Your task to perform on an android device: open the mobile data screen to see how much data has been used Image 0: 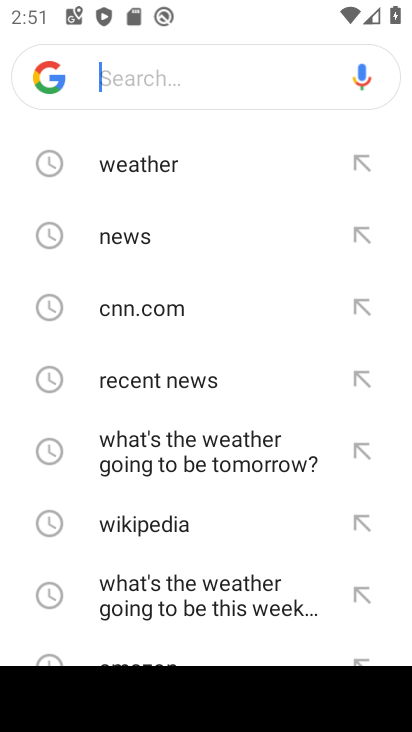
Step 0: press home button
Your task to perform on an android device: open the mobile data screen to see how much data has been used Image 1: 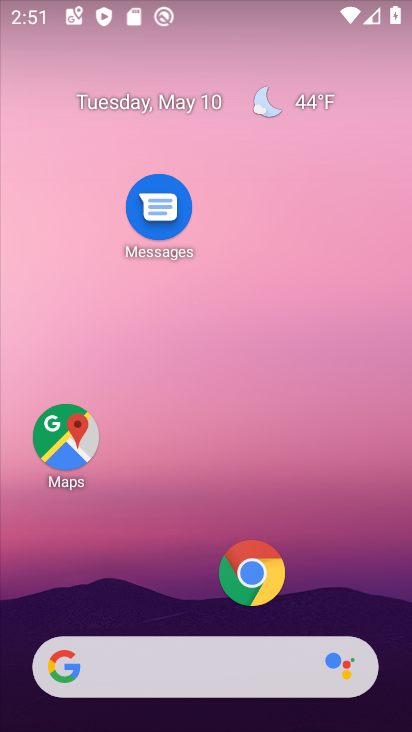
Step 1: drag from (182, 607) to (218, 201)
Your task to perform on an android device: open the mobile data screen to see how much data has been used Image 2: 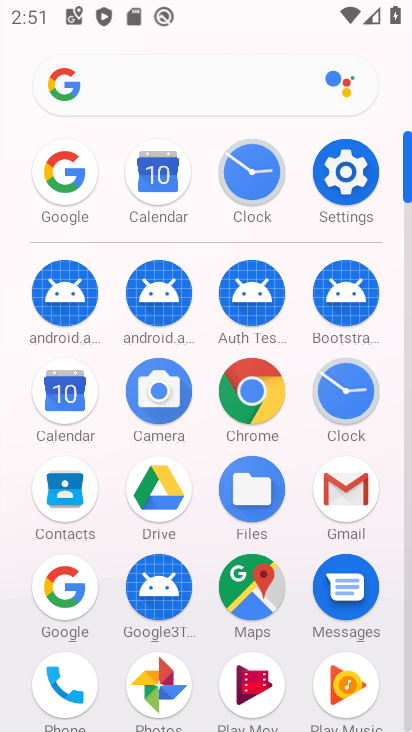
Step 2: click (334, 192)
Your task to perform on an android device: open the mobile data screen to see how much data has been used Image 3: 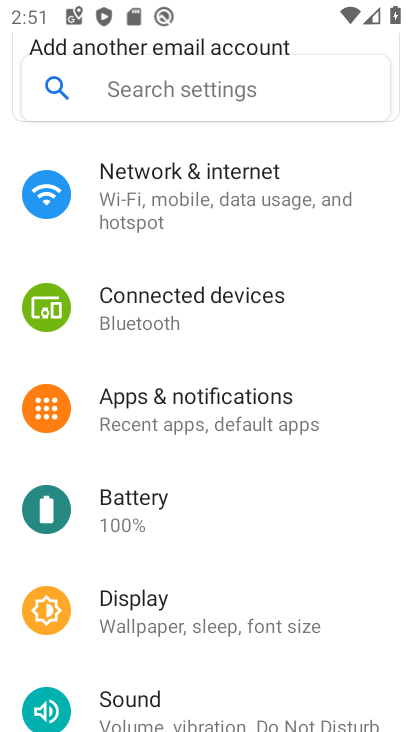
Step 3: drag from (202, 231) to (191, 527)
Your task to perform on an android device: open the mobile data screen to see how much data has been used Image 4: 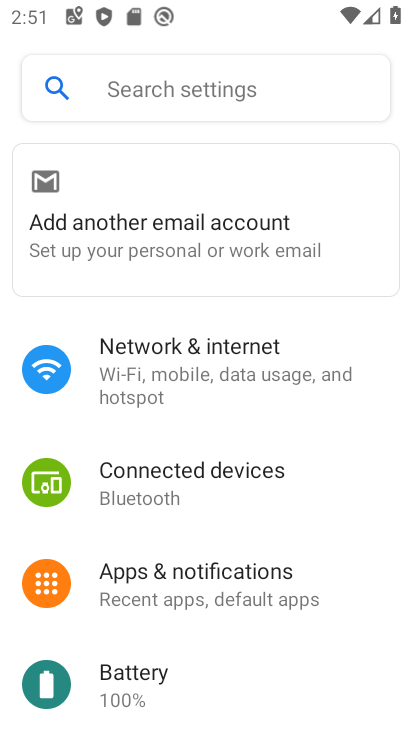
Step 4: click (195, 394)
Your task to perform on an android device: open the mobile data screen to see how much data has been used Image 5: 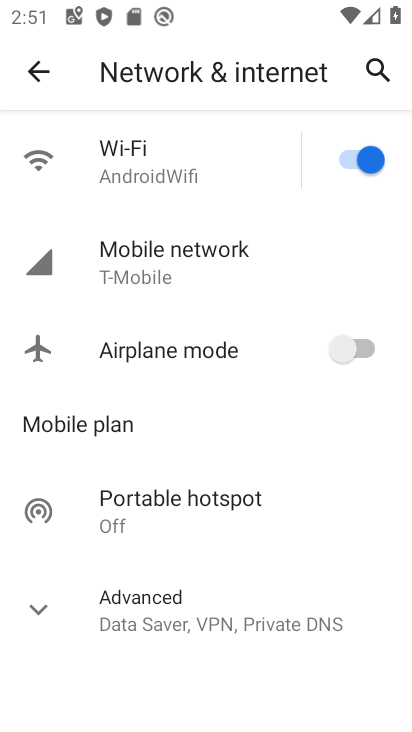
Step 5: click (209, 273)
Your task to perform on an android device: open the mobile data screen to see how much data has been used Image 6: 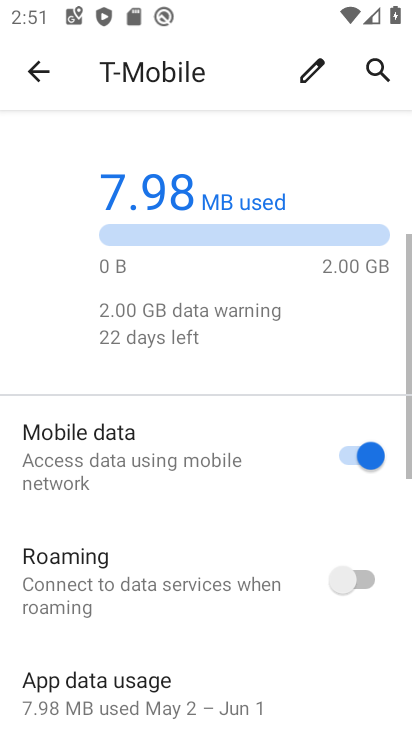
Step 6: drag from (197, 582) to (197, 307)
Your task to perform on an android device: open the mobile data screen to see how much data has been used Image 7: 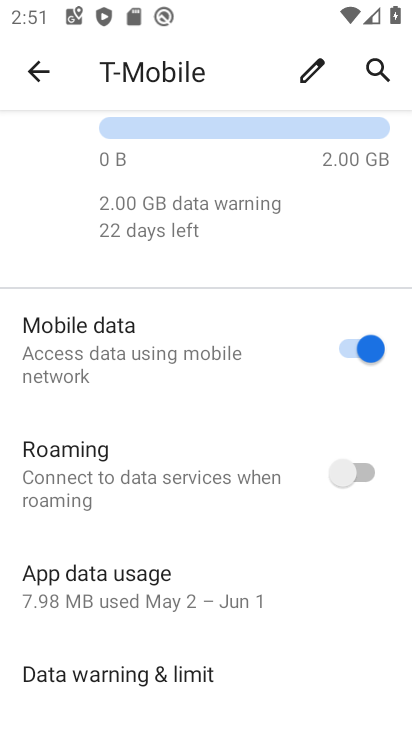
Step 7: click (149, 579)
Your task to perform on an android device: open the mobile data screen to see how much data has been used Image 8: 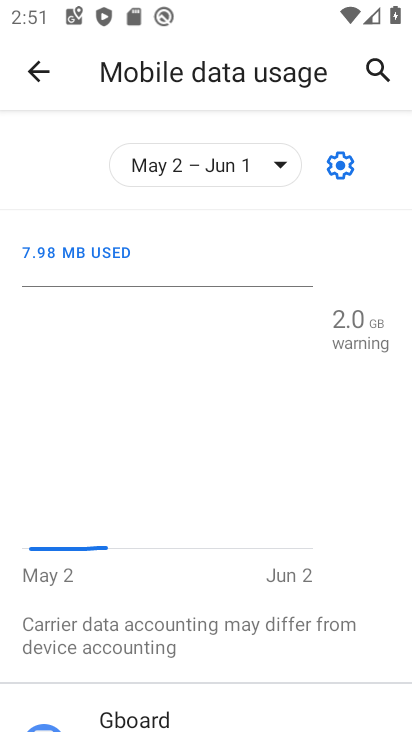
Step 8: task complete